Your task to perform on an android device: Look up the best selling patio furniture on Home Depot Image 0: 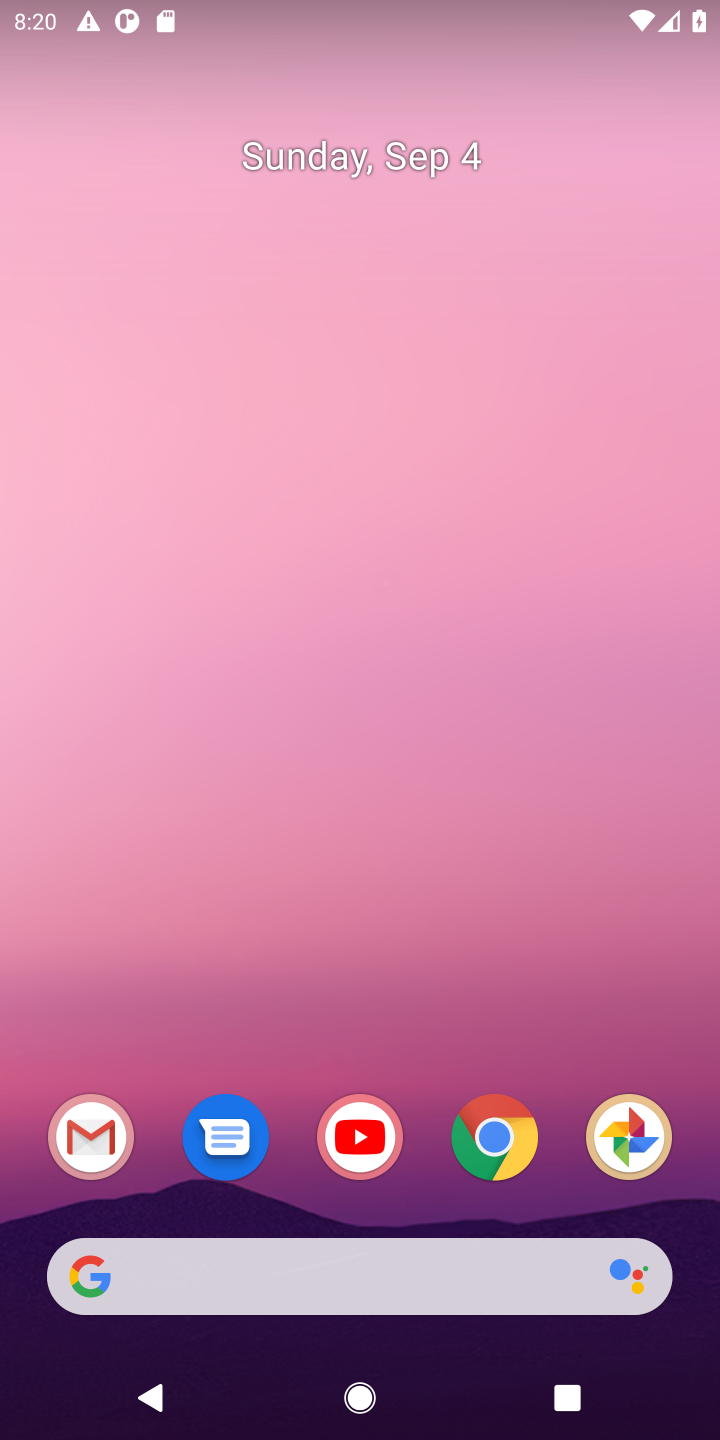
Step 0: click (492, 1138)
Your task to perform on an android device: Look up the best selling patio furniture on Home Depot Image 1: 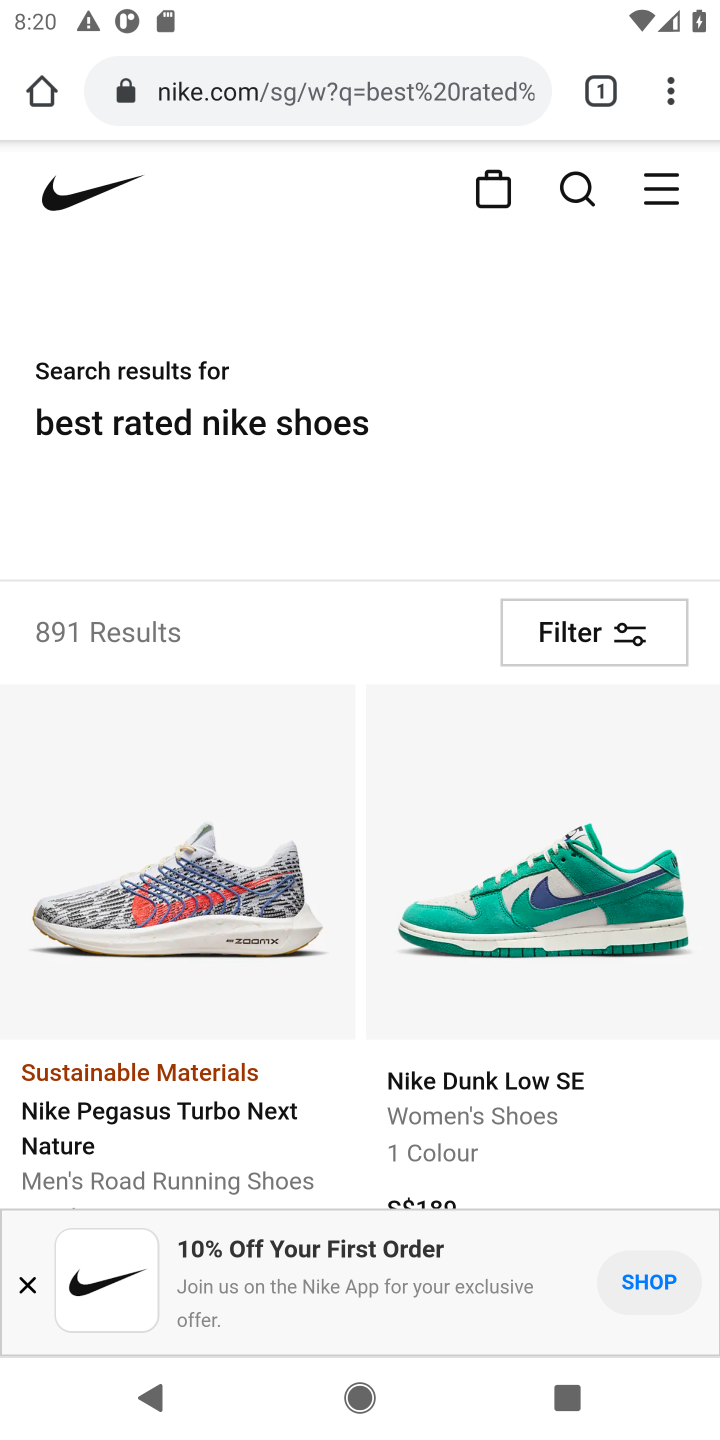
Step 1: click (414, 114)
Your task to perform on an android device: Look up the best selling patio furniture on Home Depot Image 2: 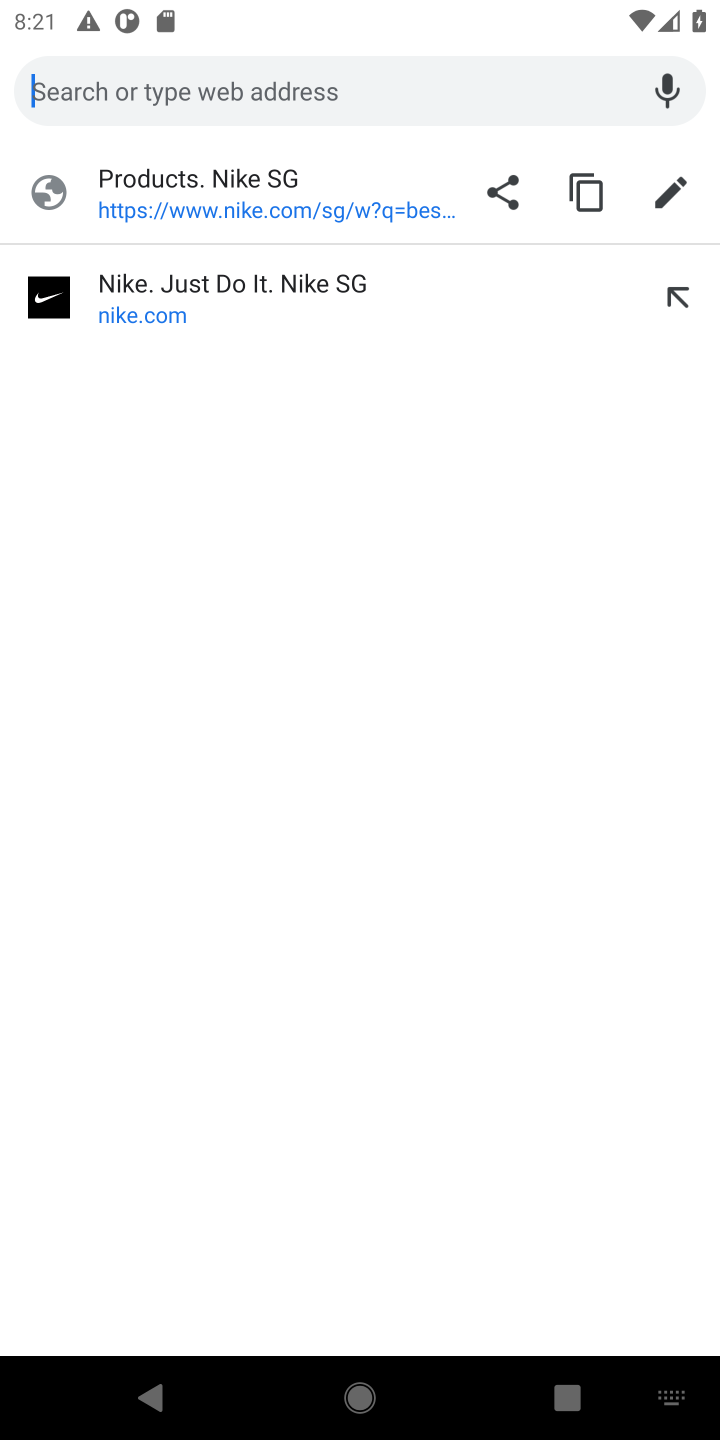
Step 2: type "Home Depot"
Your task to perform on an android device: Look up the best selling patio furniture on Home Depot Image 3: 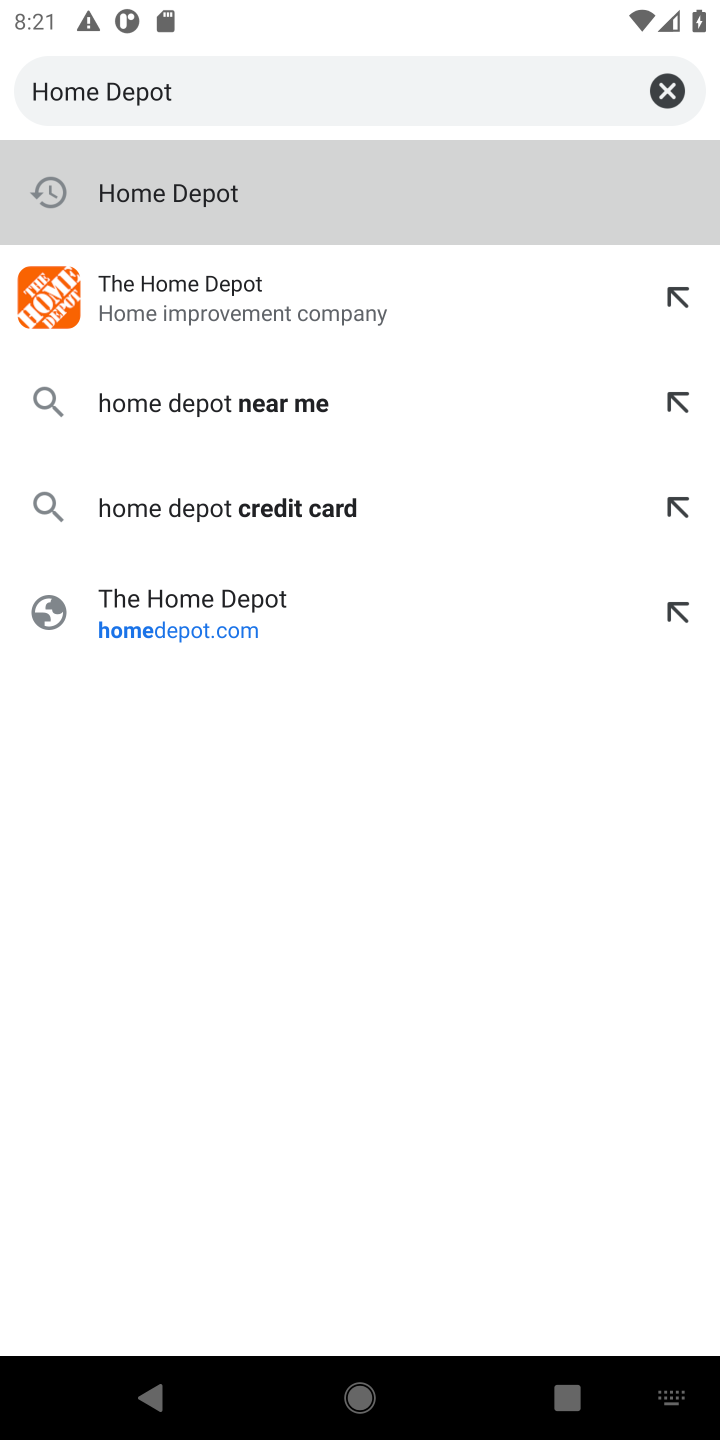
Step 3: click (205, 288)
Your task to perform on an android device: Look up the best selling patio furniture on Home Depot Image 4: 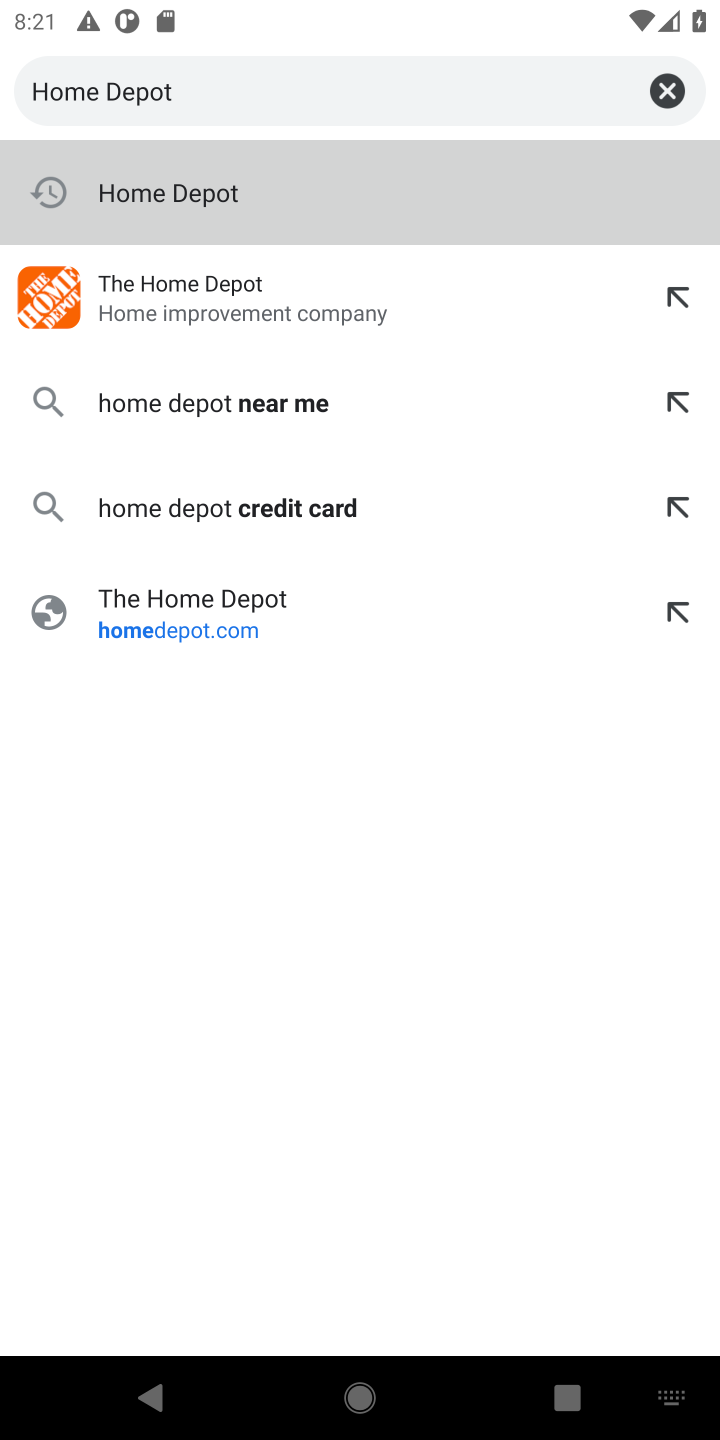
Step 4: click (195, 324)
Your task to perform on an android device: Look up the best selling patio furniture on Home Depot Image 5: 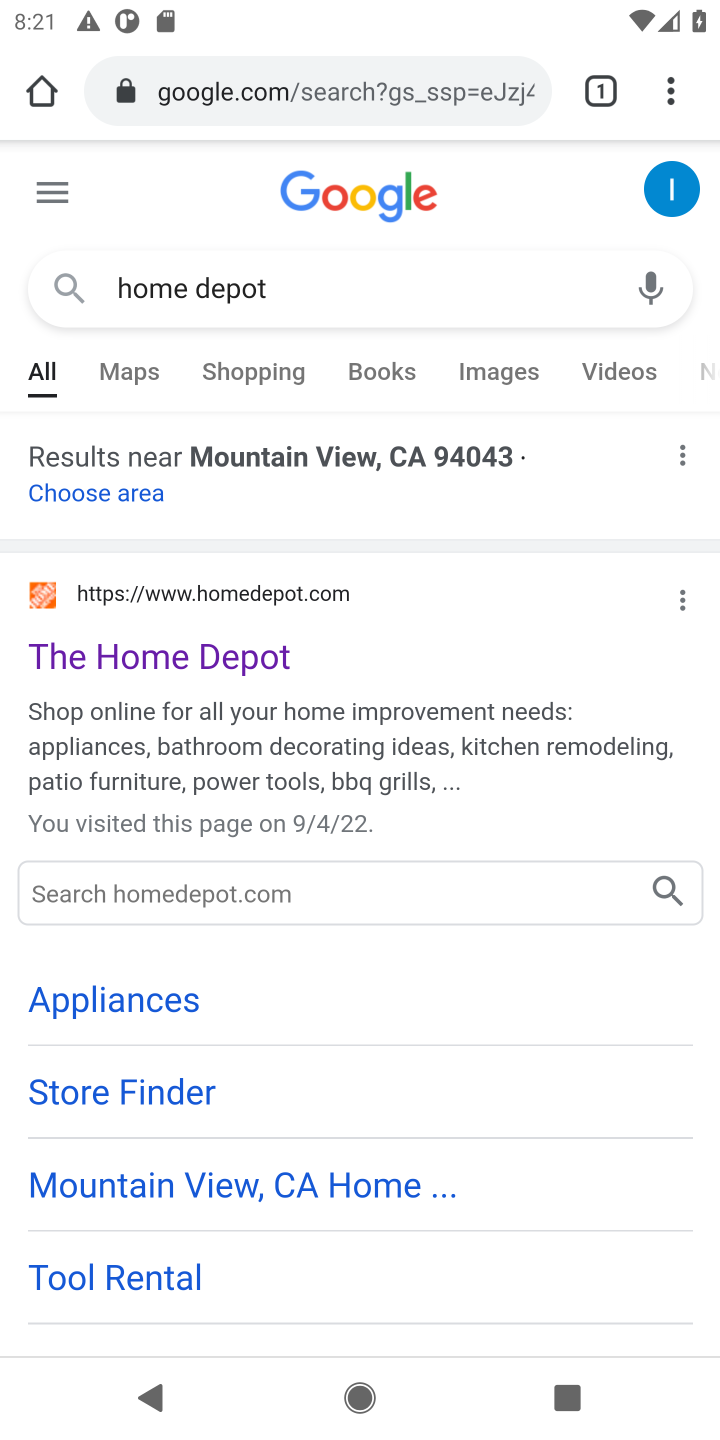
Step 5: click (216, 659)
Your task to perform on an android device: Look up the best selling patio furniture on Home Depot Image 6: 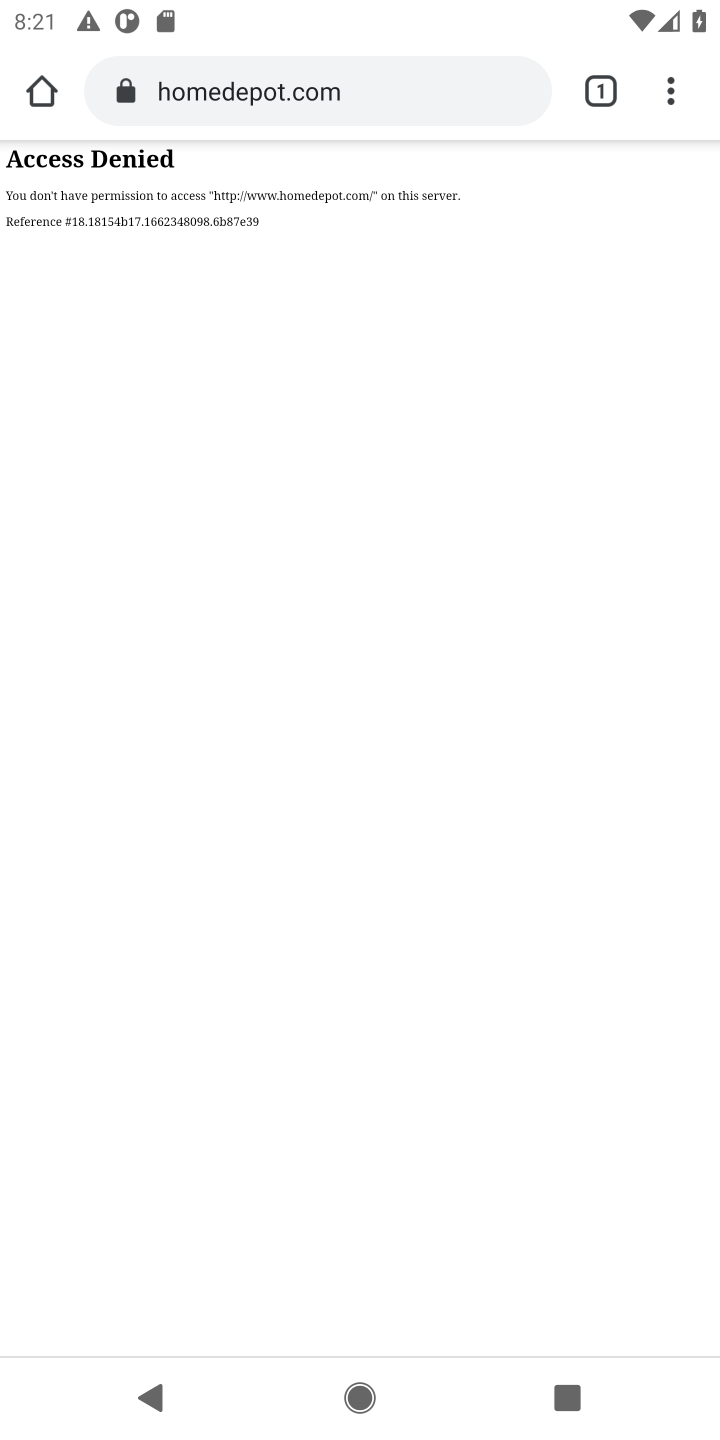
Step 6: task complete